Your task to perform on an android device: delete location history Image 0: 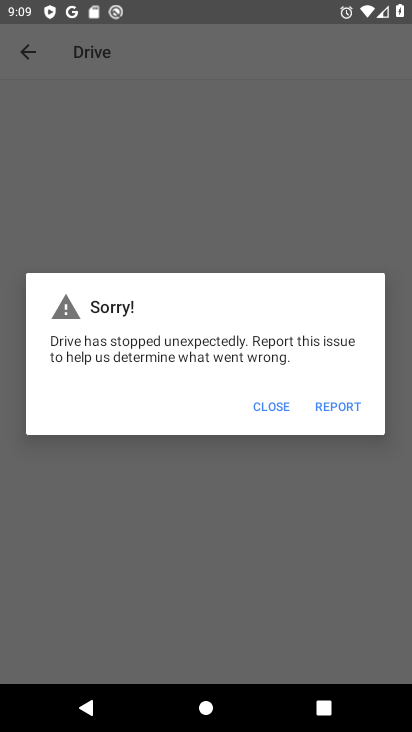
Step 0: press home button
Your task to perform on an android device: delete location history Image 1: 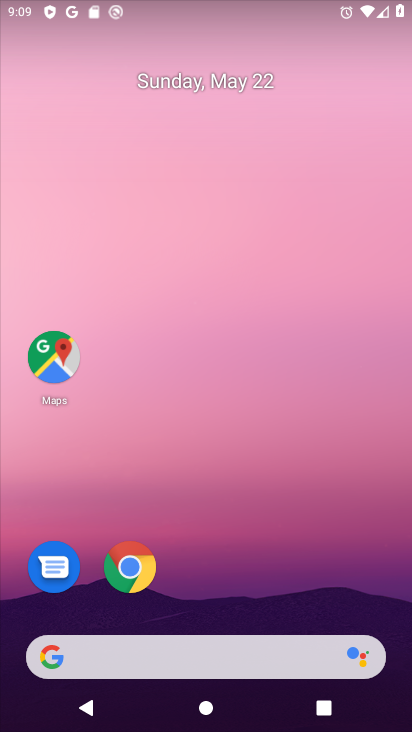
Step 1: click (53, 360)
Your task to perform on an android device: delete location history Image 2: 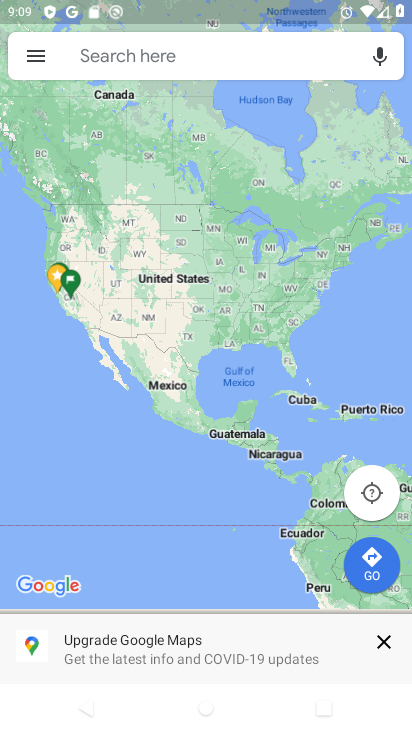
Step 2: click (30, 47)
Your task to perform on an android device: delete location history Image 3: 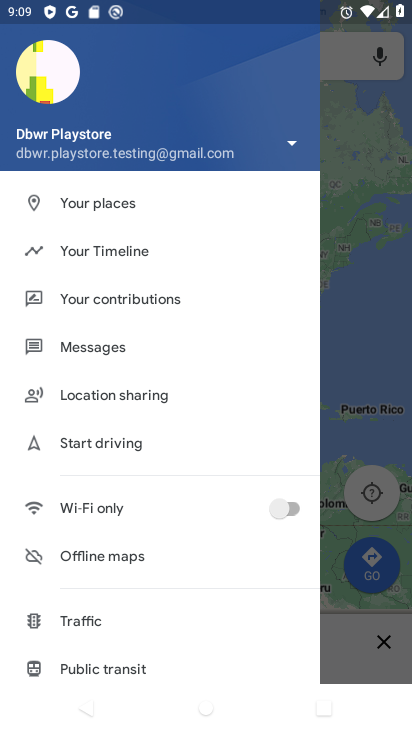
Step 3: click (118, 250)
Your task to perform on an android device: delete location history Image 4: 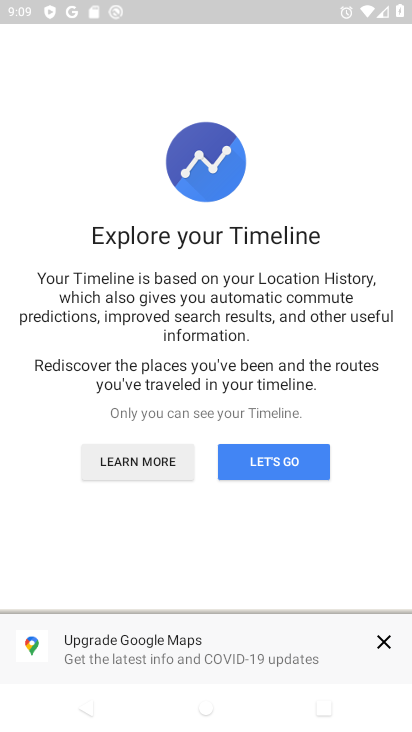
Step 4: click (296, 456)
Your task to perform on an android device: delete location history Image 5: 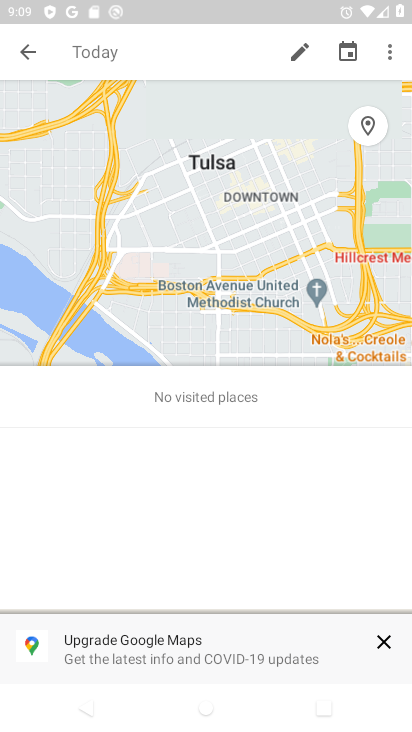
Step 5: click (389, 52)
Your task to perform on an android device: delete location history Image 6: 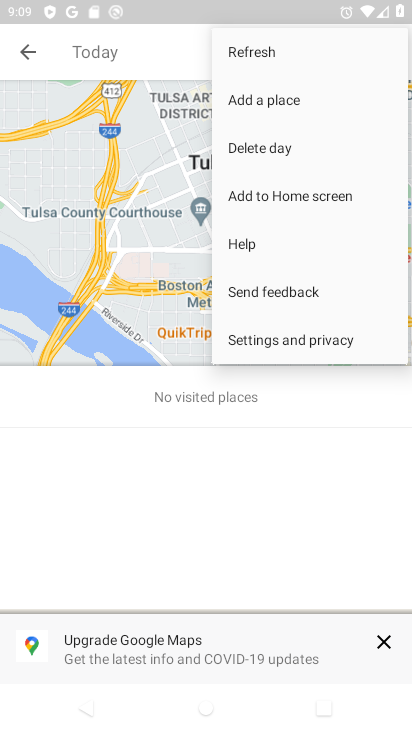
Step 6: click (279, 344)
Your task to perform on an android device: delete location history Image 7: 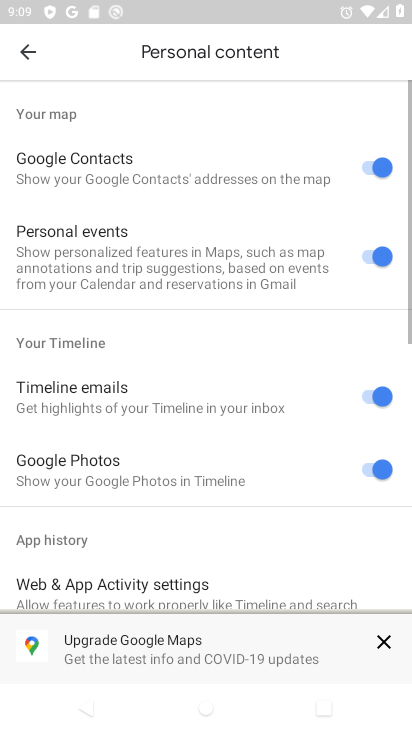
Step 7: drag from (174, 490) to (209, 235)
Your task to perform on an android device: delete location history Image 8: 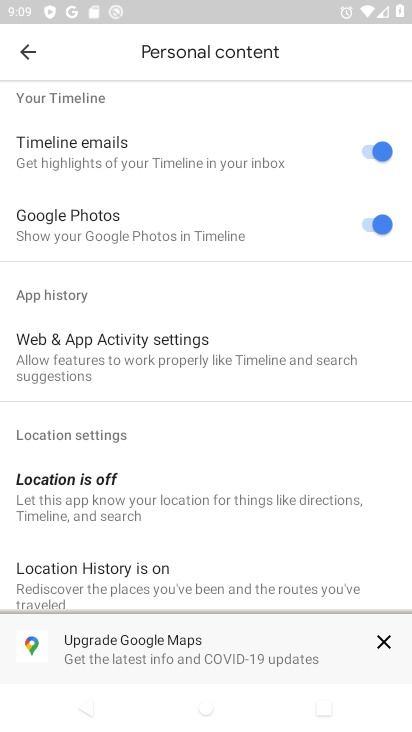
Step 8: drag from (206, 539) to (203, 264)
Your task to perform on an android device: delete location history Image 9: 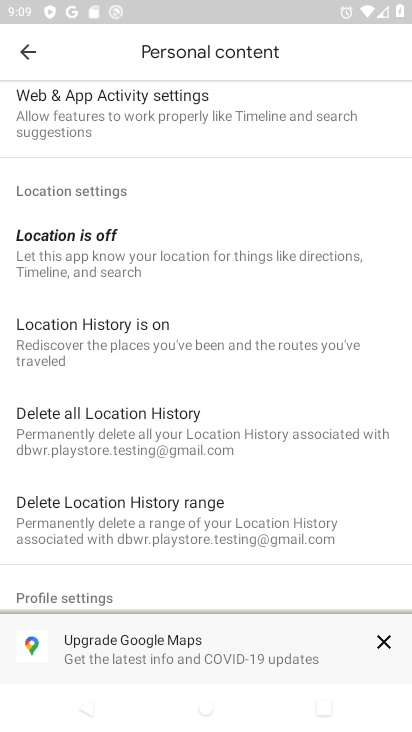
Step 9: click (171, 428)
Your task to perform on an android device: delete location history Image 10: 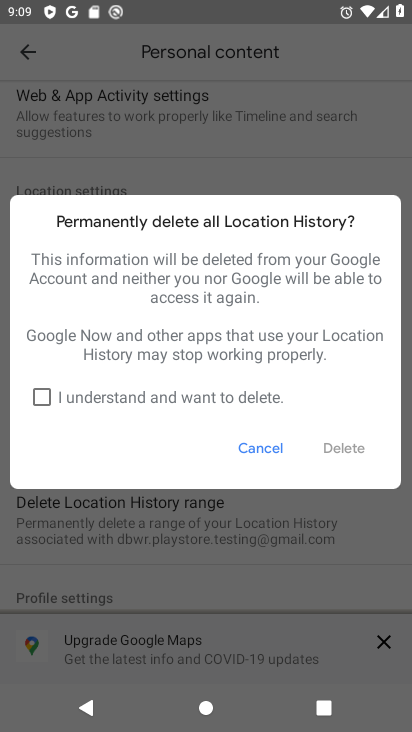
Step 10: click (139, 398)
Your task to perform on an android device: delete location history Image 11: 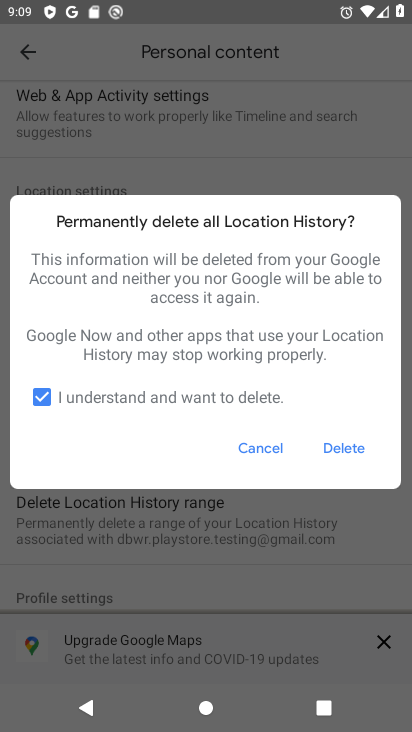
Step 11: click (351, 447)
Your task to perform on an android device: delete location history Image 12: 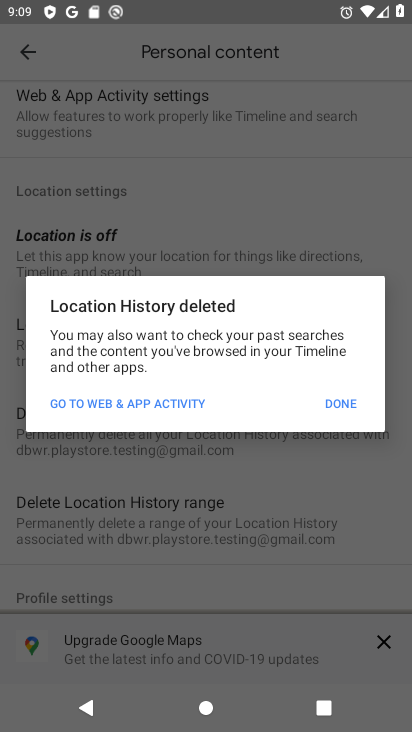
Step 12: click (345, 404)
Your task to perform on an android device: delete location history Image 13: 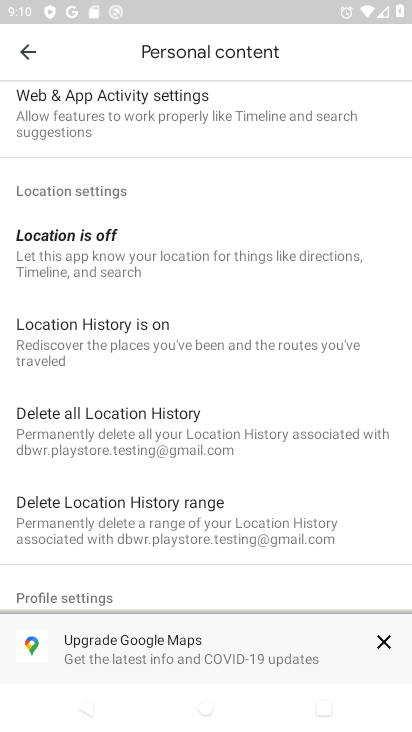
Step 13: task complete